Your task to perform on an android device: Open Chrome and go to settings Image 0: 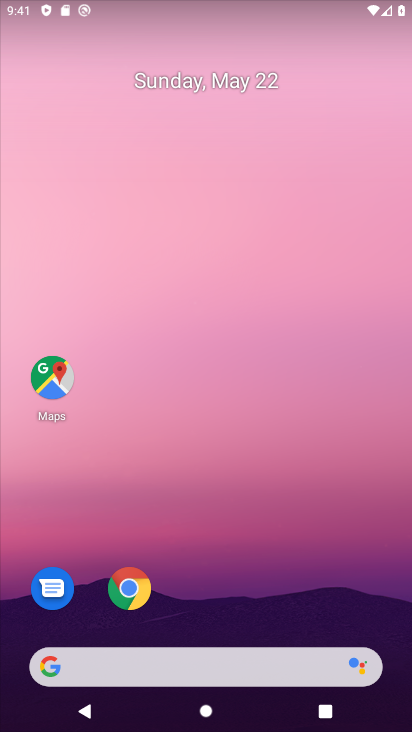
Step 0: drag from (280, 632) to (176, 191)
Your task to perform on an android device: Open Chrome and go to settings Image 1: 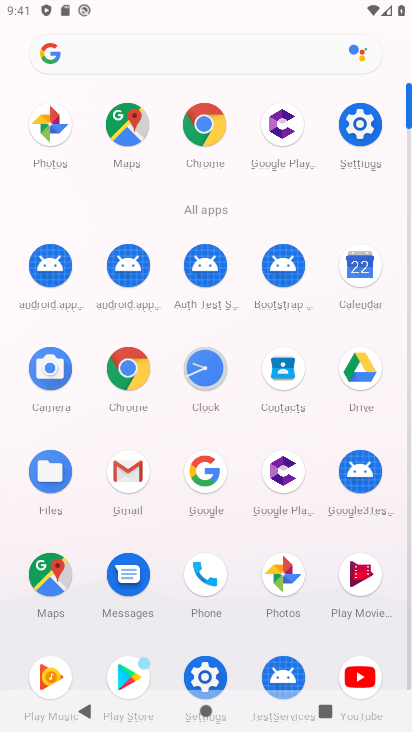
Step 1: click (210, 138)
Your task to perform on an android device: Open Chrome and go to settings Image 2: 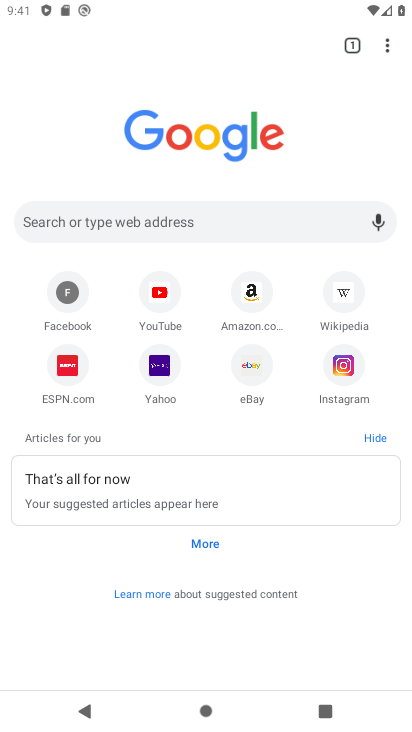
Step 2: click (386, 48)
Your task to perform on an android device: Open Chrome and go to settings Image 3: 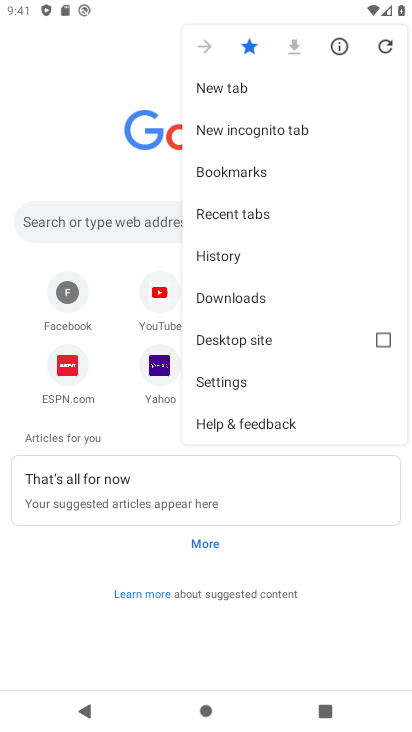
Step 3: click (260, 381)
Your task to perform on an android device: Open Chrome and go to settings Image 4: 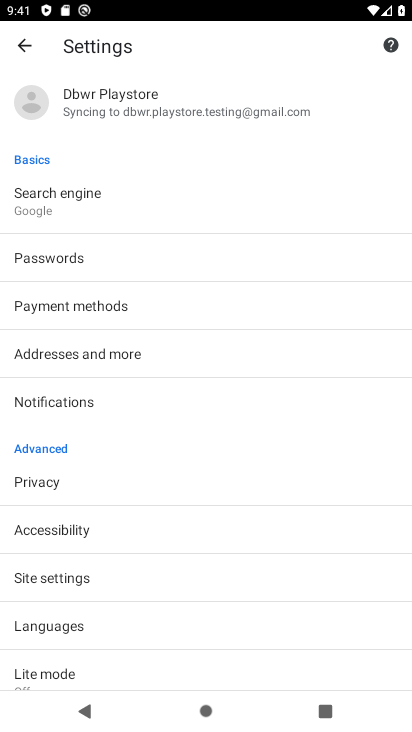
Step 4: task complete